Your task to perform on an android device: Show me recent news Image 0: 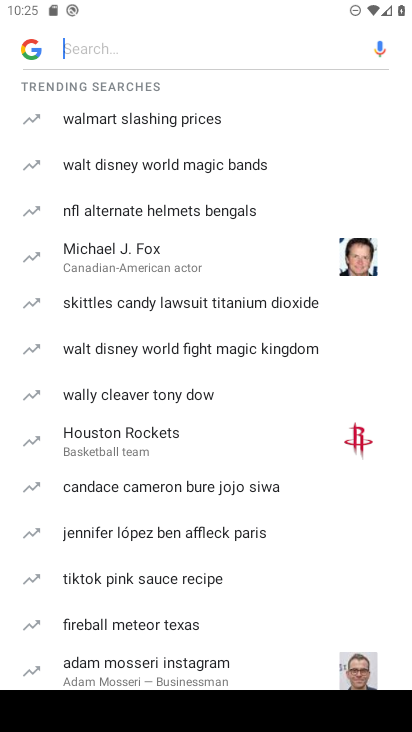
Step 0: press home button
Your task to perform on an android device: Show me recent news Image 1: 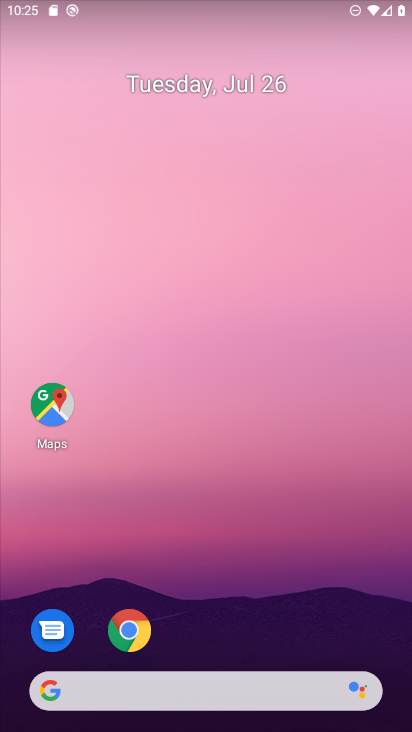
Step 1: task complete